Your task to perform on an android device: turn off notifications settings in the gmail app Image 0: 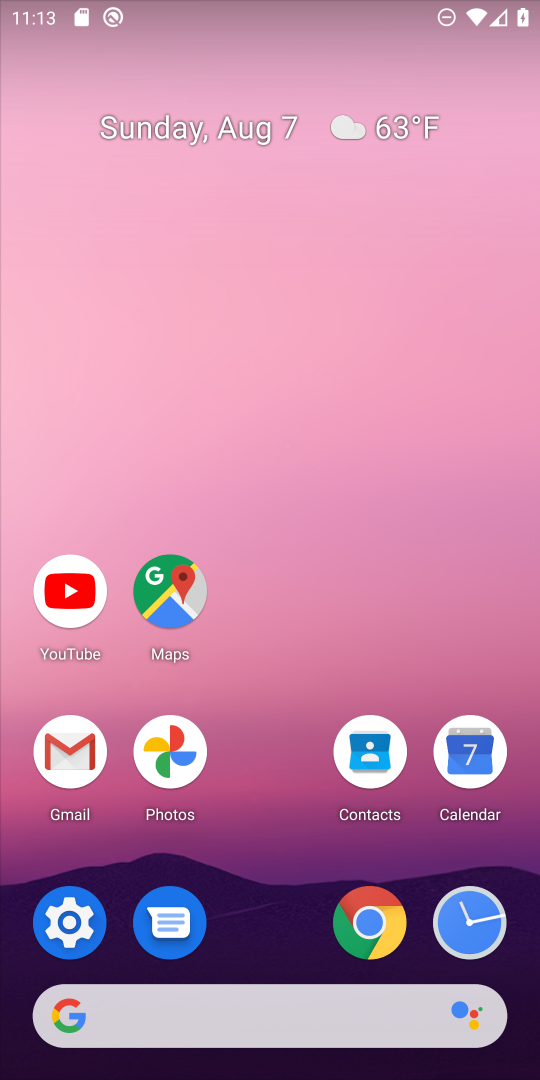
Step 0: click (71, 755)
Your task to perform on an android device: turn off notifications settings in the gmail app Image 1: 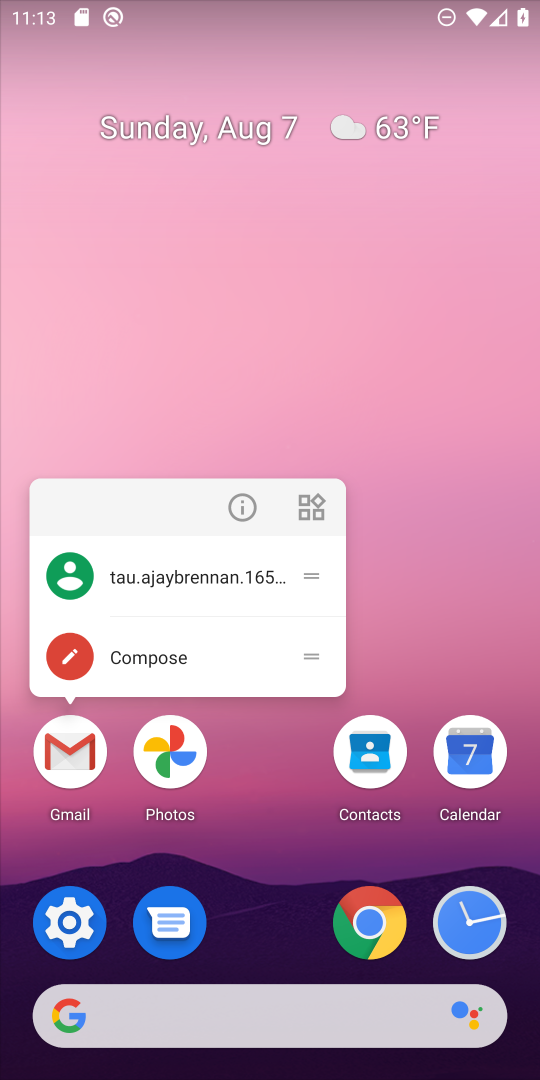
Step 1: click (68, 753)
Your task to perform on an android device: turn off notifications settings in the gmail app Image 2: 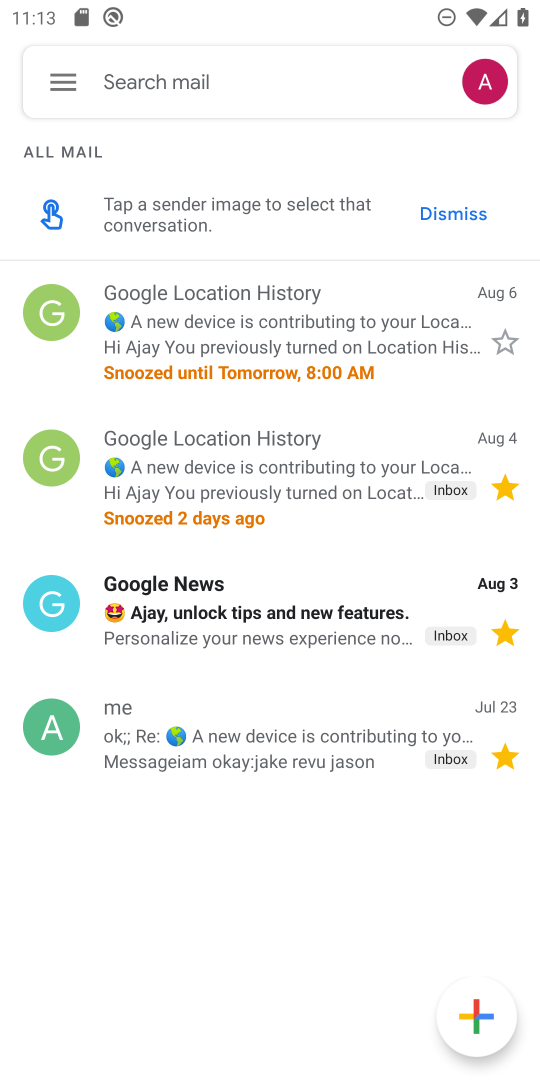
Step 2: click (54, 74)
Your task to perform on an android device: turn off notifications settings in the gmail app Image 3: 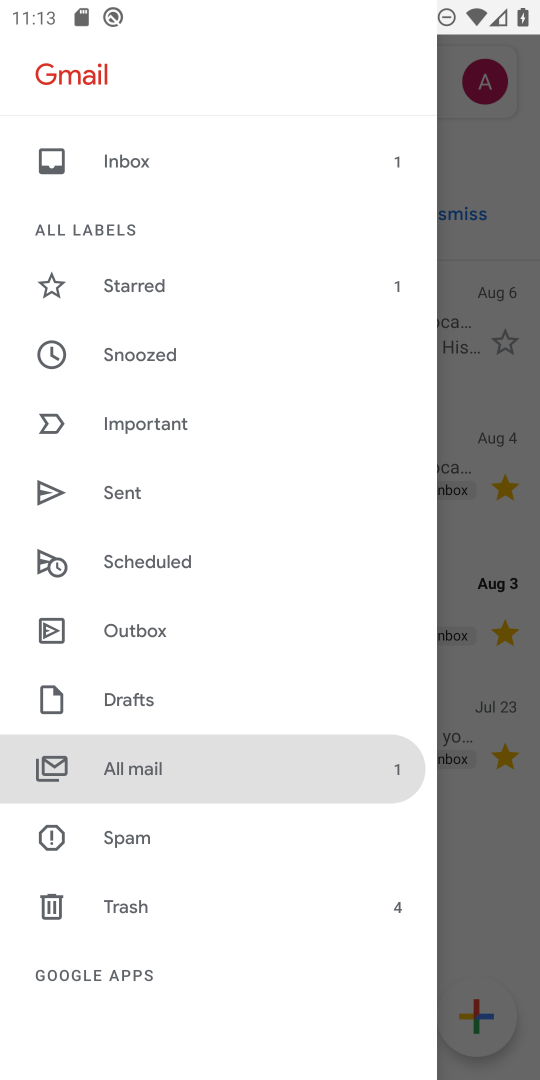
Step 3: drag from (269, 923) to (229, 425)
Your task to perform on an android device: turn off notifications settings in the gmail app Image 4: 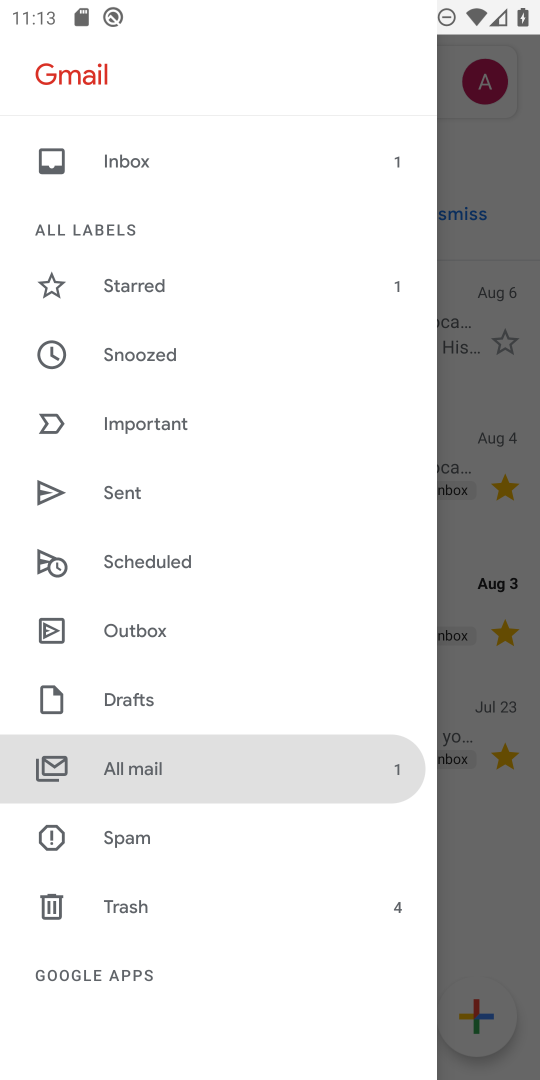
Step 4: drag from (186, 882) to (238, 333)
Your task to perform on an android device: turn off notifications settings in the gmail app Image 5: 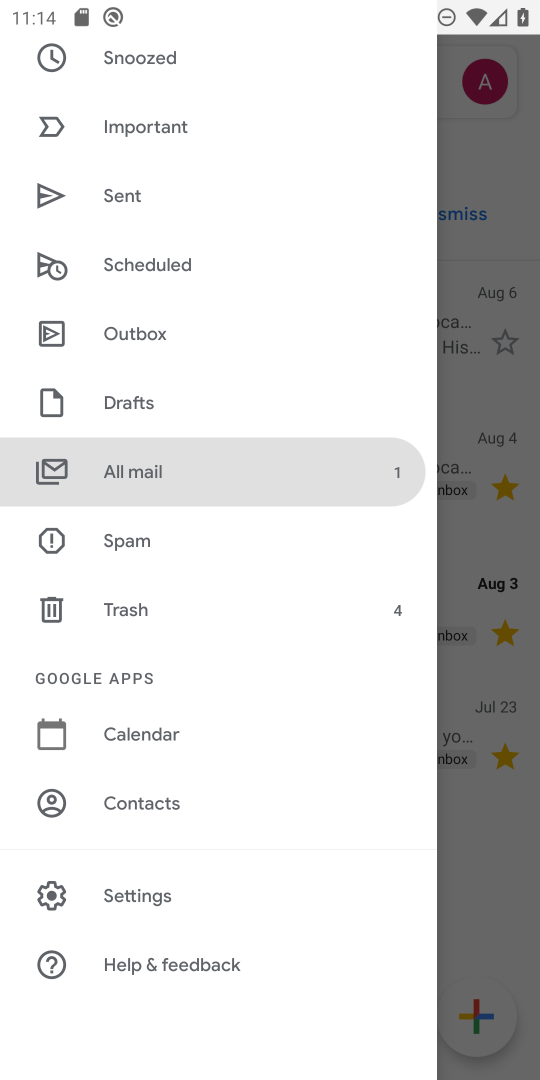
Step 5: click (128, 899)
Your task to perform on an android device: turn off notifications settings in the gmail app Image 6: 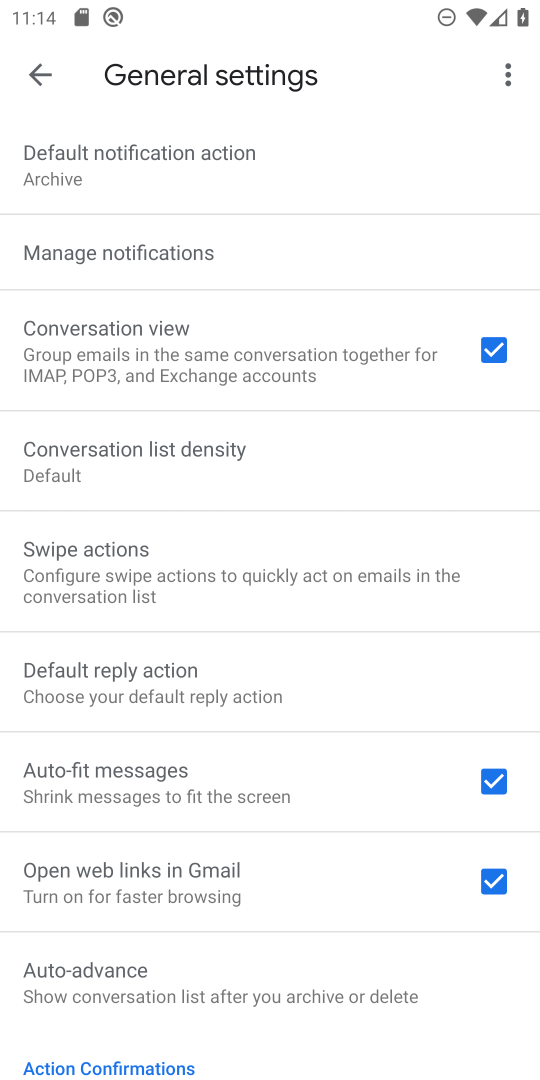
Step 6: click (133, 252)
Your task to perform on an android device: turn off notifications settings in the gmail app Image 7: 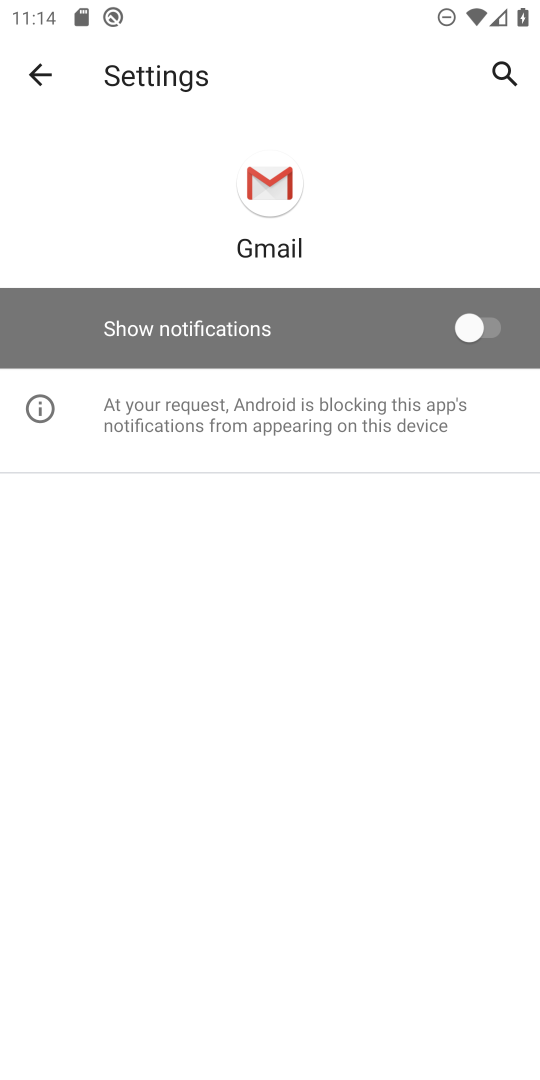
Step 7: task complete